Your task to perform on an android device: What's a good restaurant near me? Image 0: 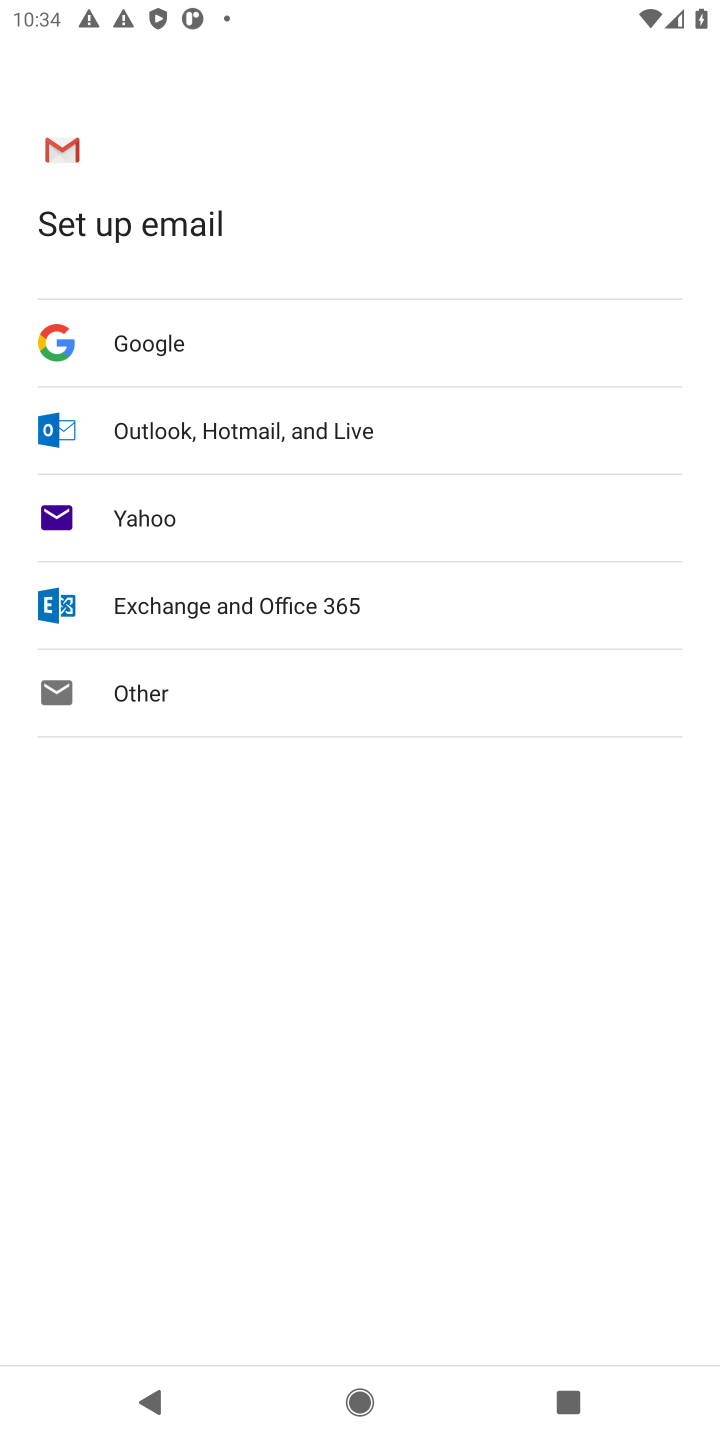
Step 0: press home button
Your task to perform on an android device: What's a good restaurant near me? Image 1: 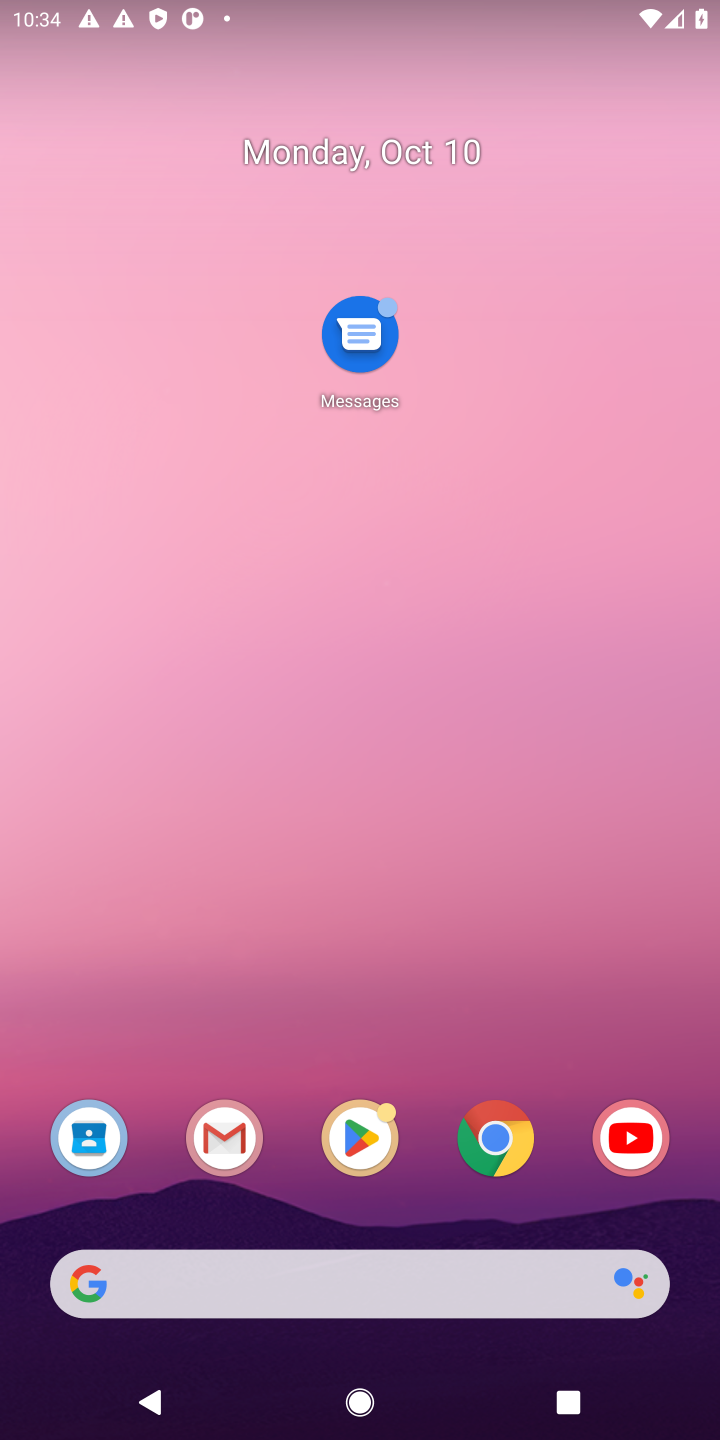
Step 1: click (508, 1149)
Your task to perform on an android device: What's a good restaurant near me? Image 2: 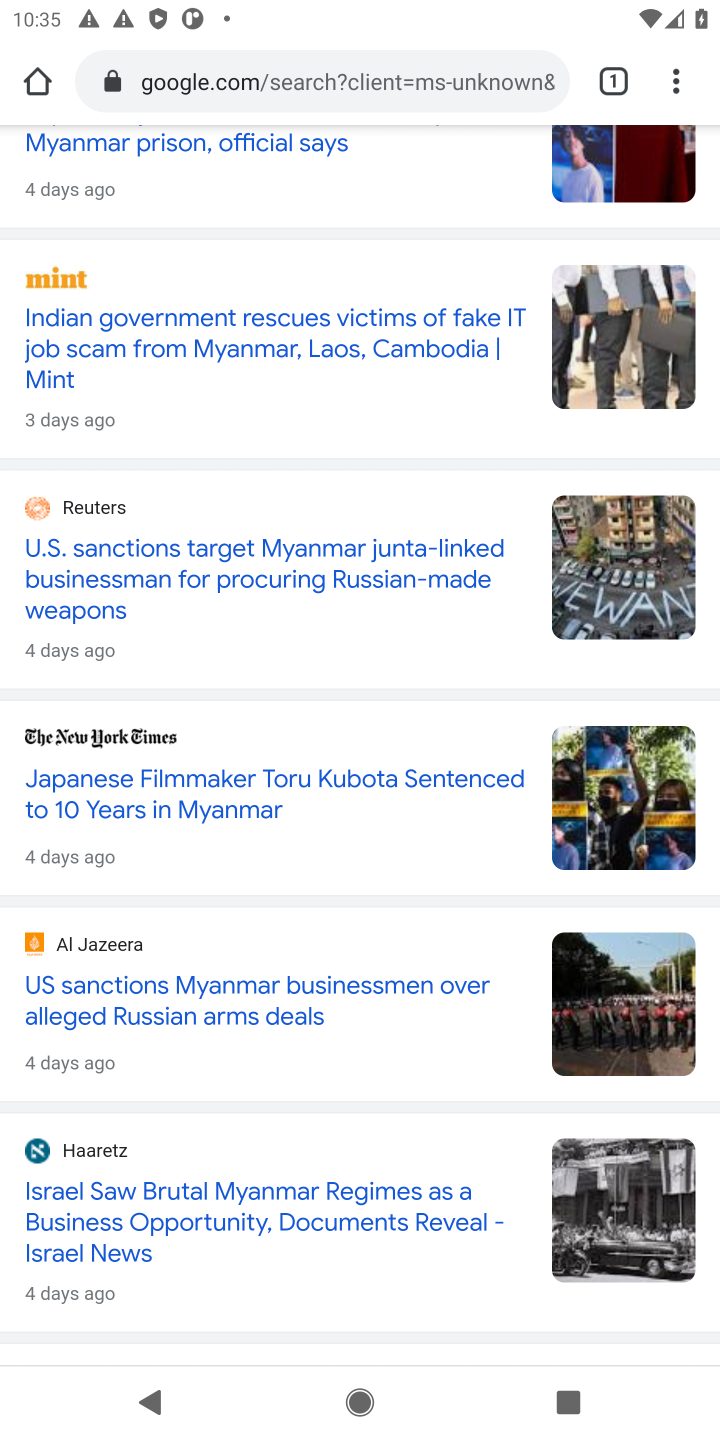
Step 2: click (379, 73)
Your task to perform on an android device: What's a good restaurant near me? Image 3: 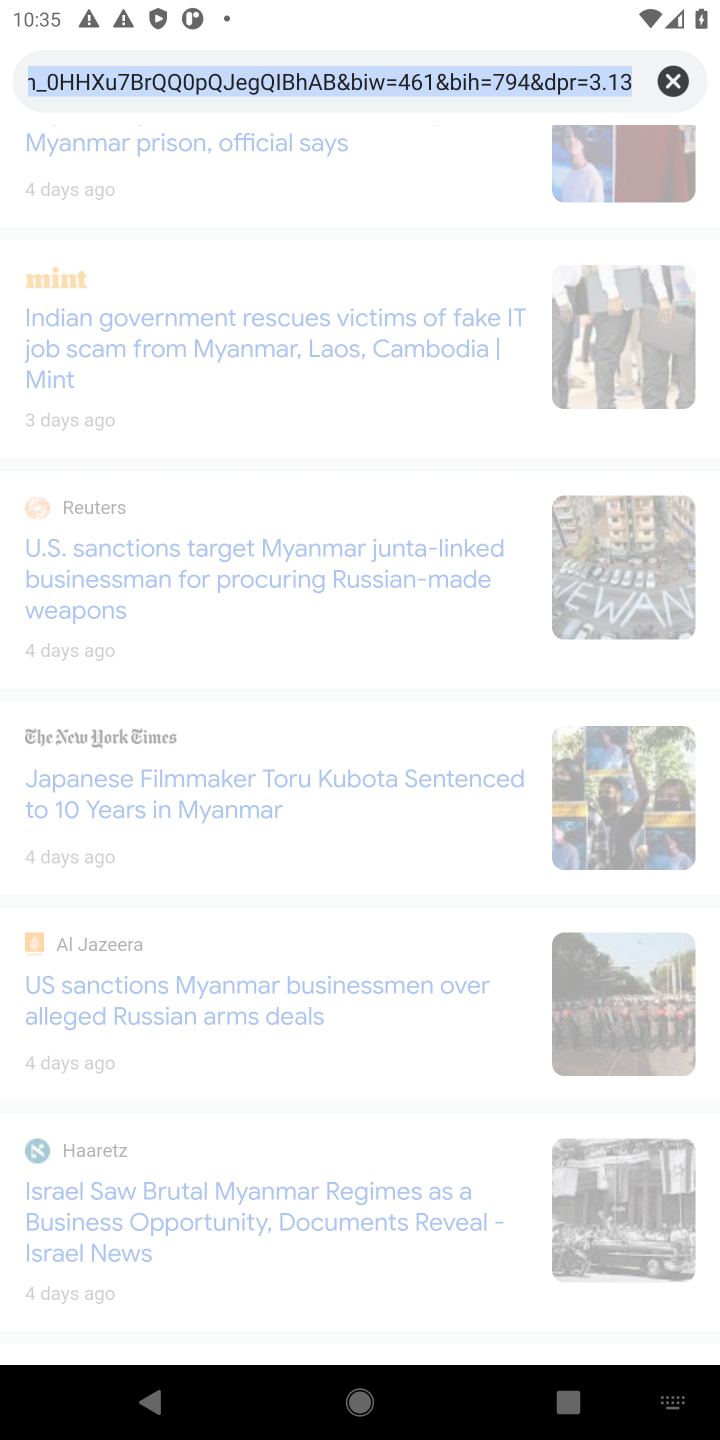
Step 3: type "good restaurant near me"
Your task to perform on an android device: What's a good restaurant near me? Image 4: 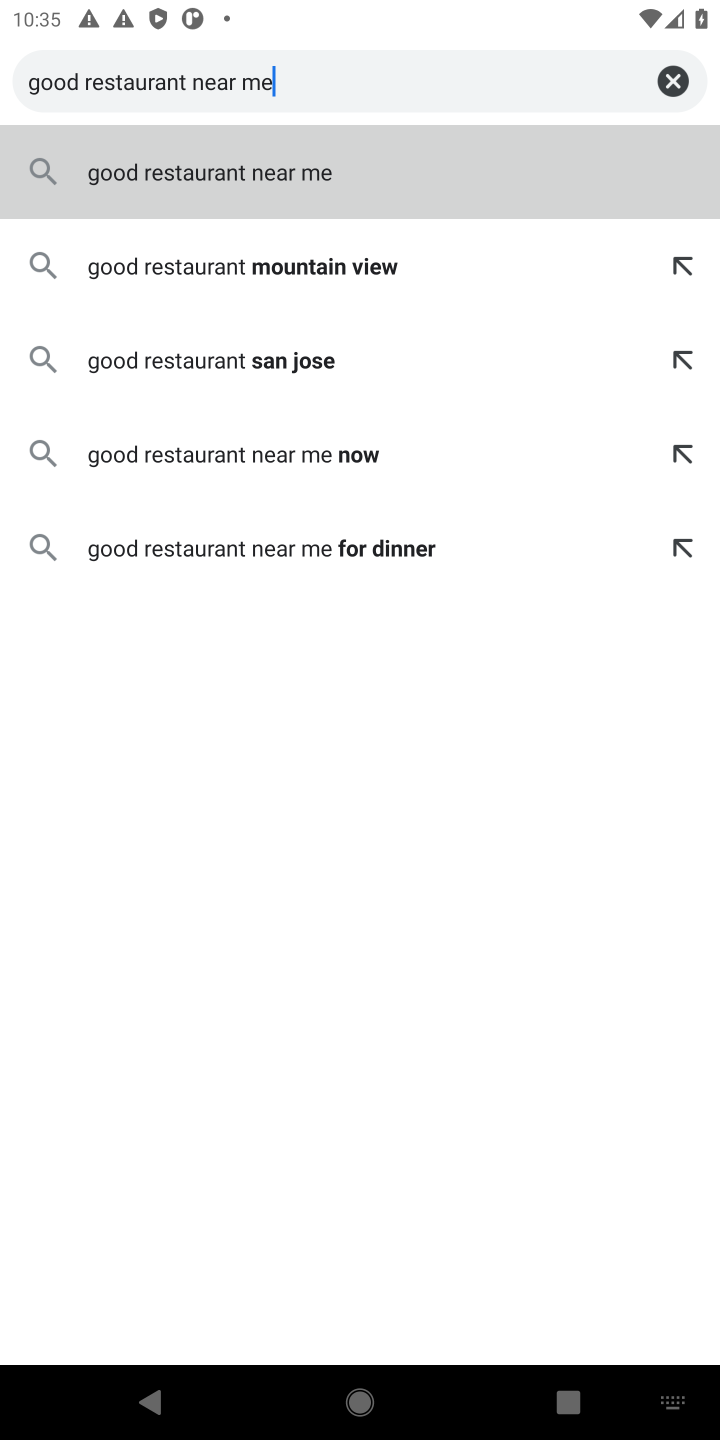
Step 4: press enter
Your task to perform on an android device: What's a good restaurant near me? Image 5: 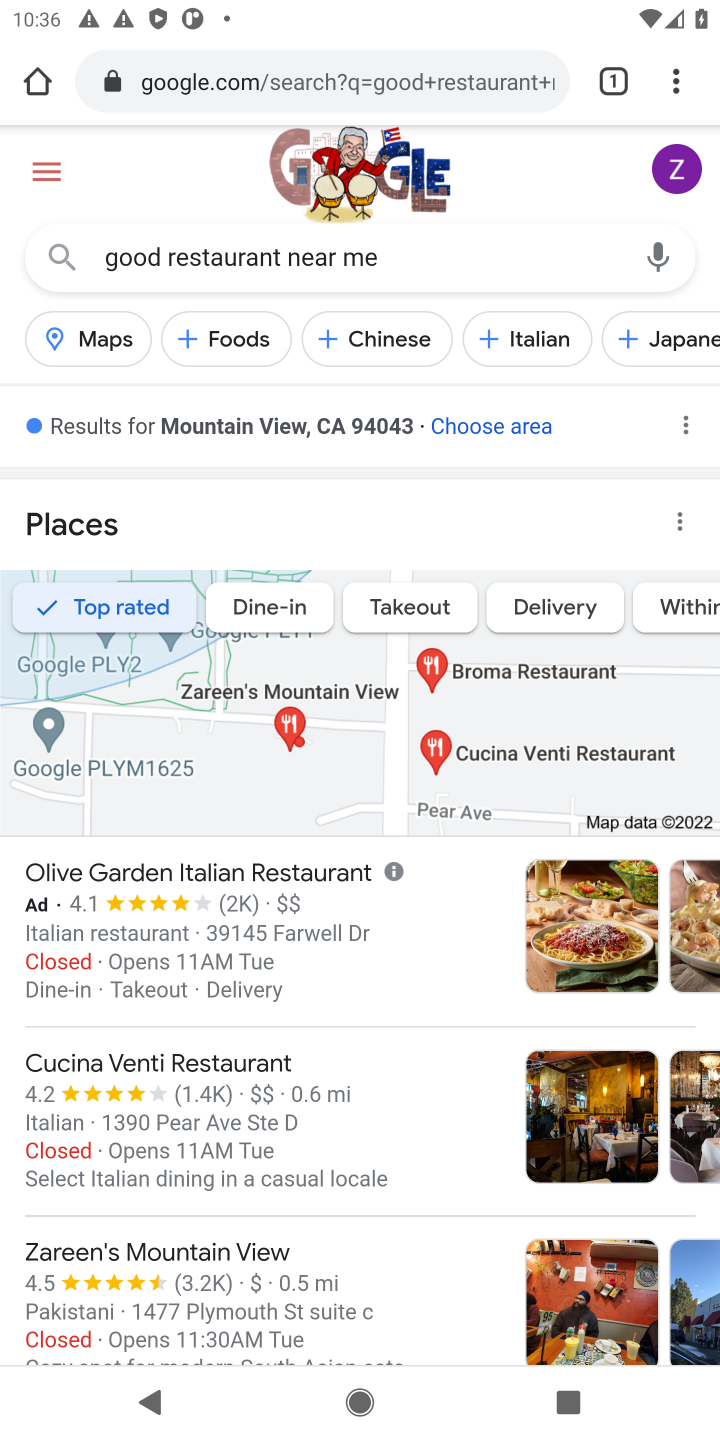
Step 5: task complete